Your task to perform on an android device: Open Google Chrome and open the bookmarks view Image 0: 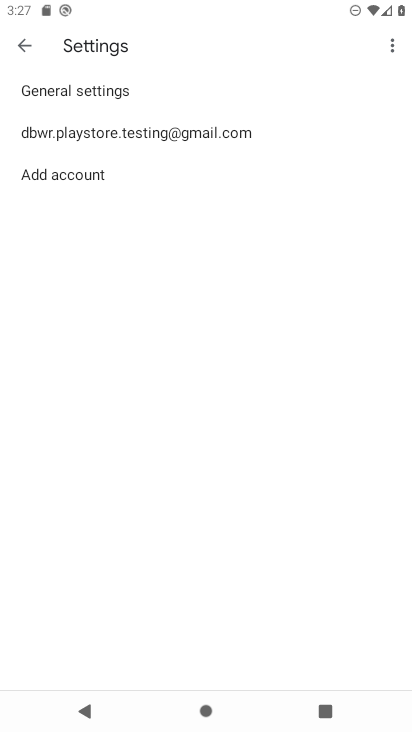
Step 0: press home button
Your task to perform on an android device: Open Google Chrome and open the bookmarks view Image 1: 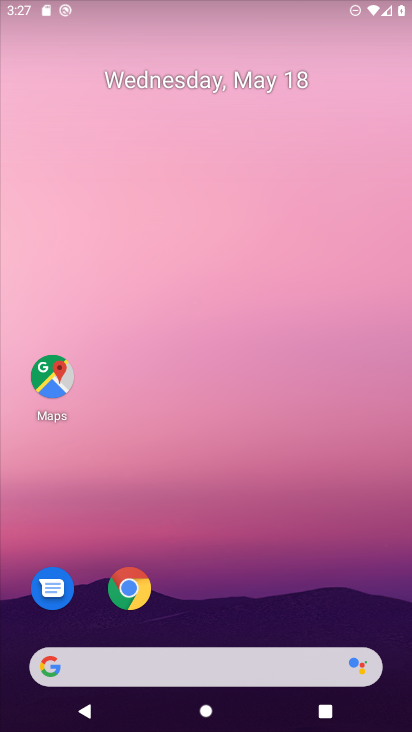
Step 1: drag from (264, 598) to (297, 164)
Your task to perform on an android device: Open Google Chrome and open the bookmarks view Image 2: 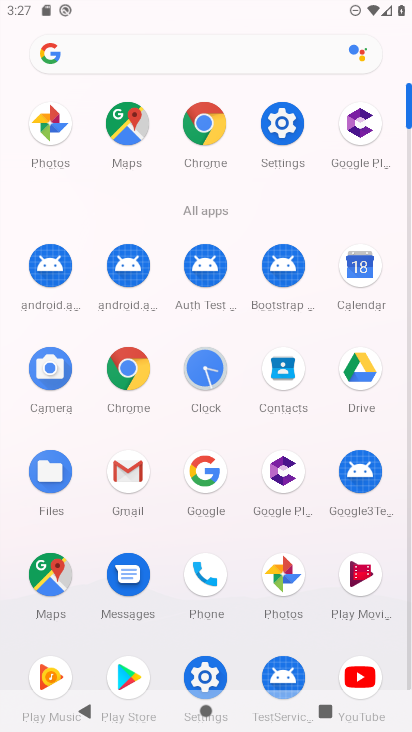
Step 2: click (205, 157)
Your task to perform on an android device: Open Google Chrome and open the bookmarks view Image 3: 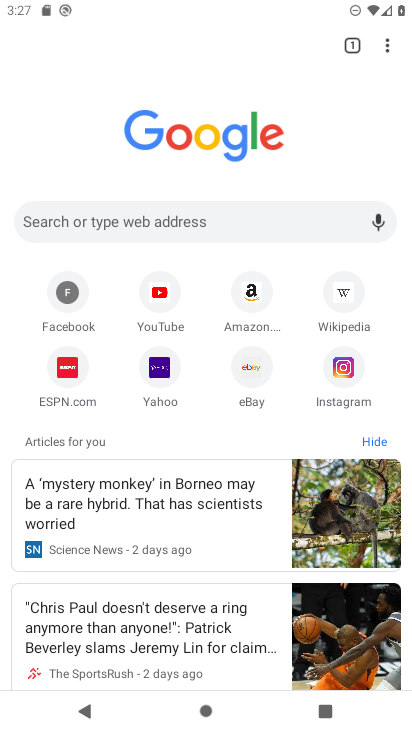
Step 3: click (396, 47)
Your task to perform on an android device: Open Google Chrome and open the bookmarks view Image 4: 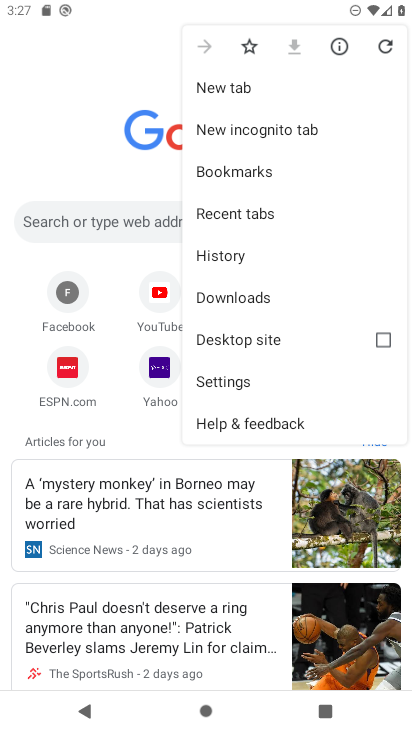
Step 4: click (293, 163)
Your task to perform on an android device: Open Google Chrome and open the bookmarks view Image 5: 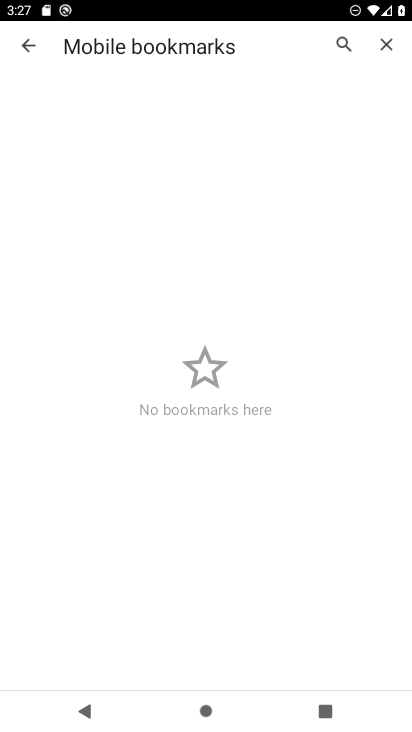
Step 5: task complete